Your task to perform on an android device: Check the weather Image 0: 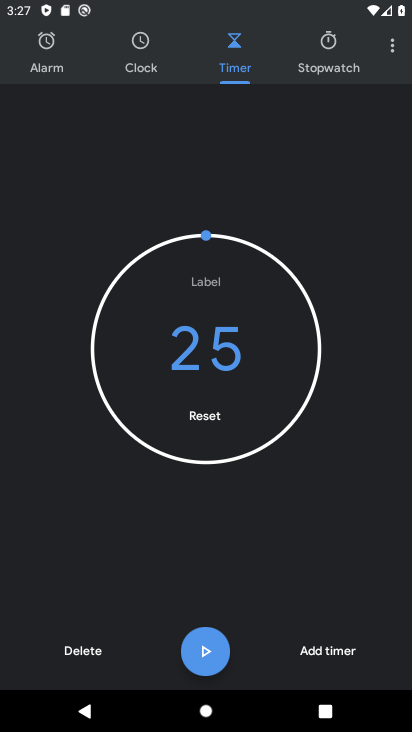
Step 0: press home button
Your task to perform on an android device: Check the weather Image 1: 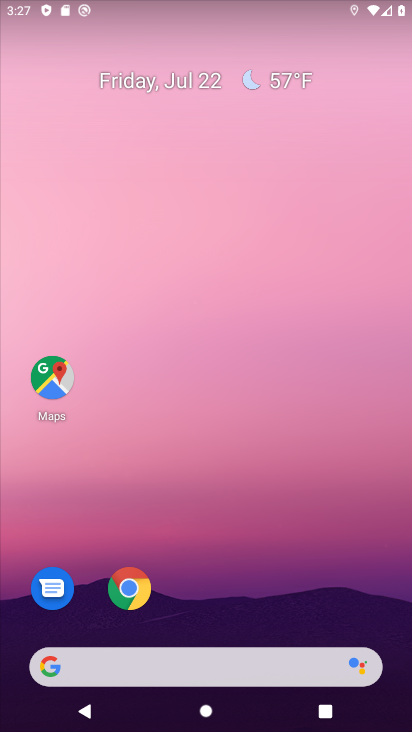
Step 1: click (214, 662)
Your task to perform on an android device: Check the weather Image 2: 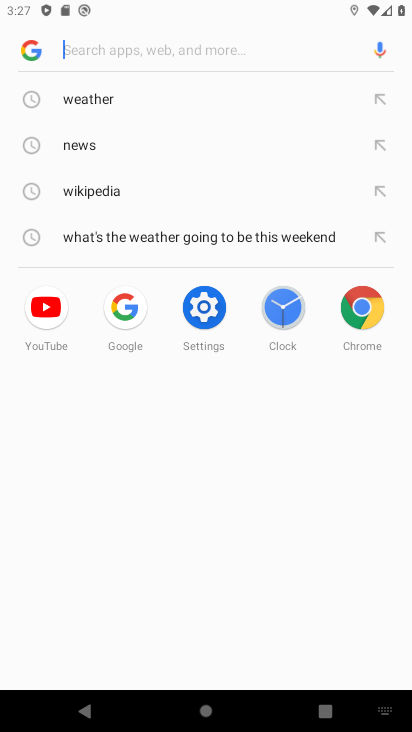
Step 2: click (94, 101)
Your task to perform on an android device: Check the weather Image 3: 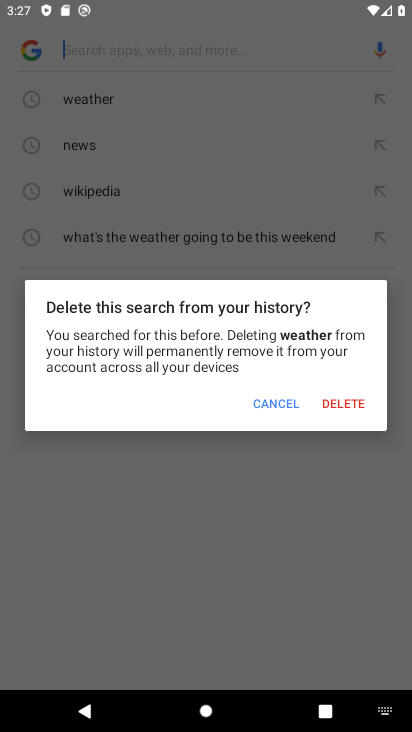
Step 3: click (283, 400)
Your task to perform on an android device: Check the weather Image 4: 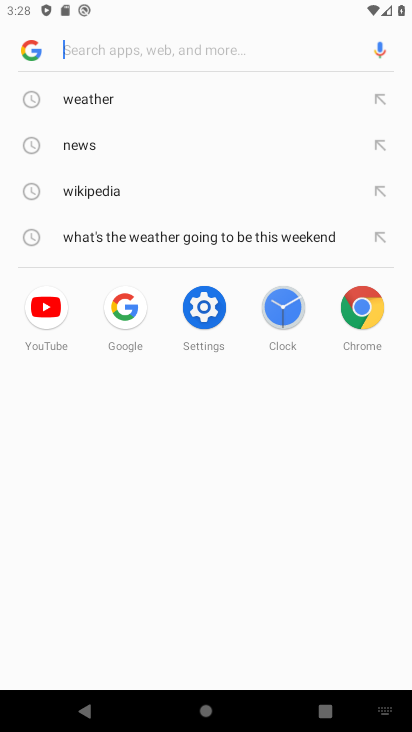
Step 4: click (92, 102)
Your task to perform on an android device: Check the weather Image 5: 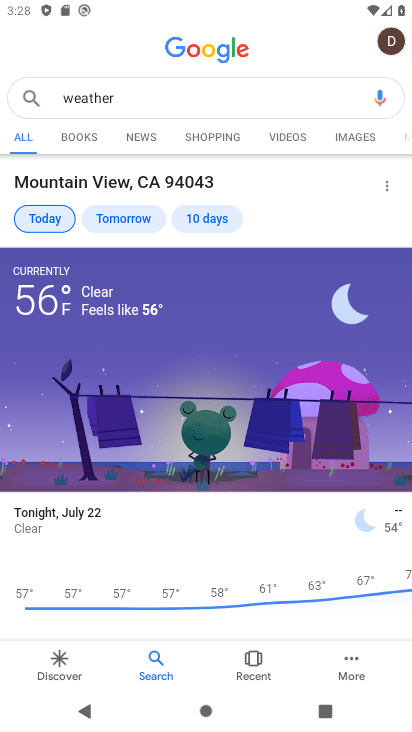
Step 5: task complete